Your task to perform on an android device: turn off location Image 0: 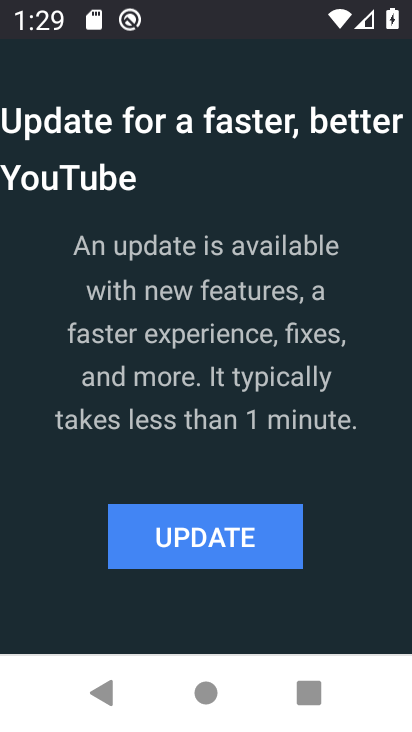
Step 0: press home button
Your task to perform on an android device: turn off location Image 1: 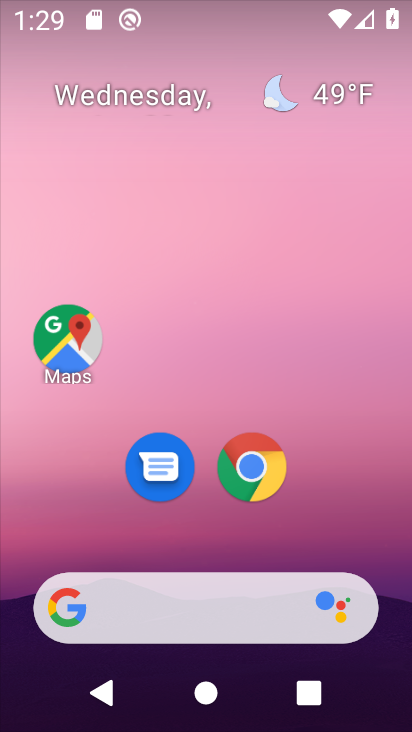
Step 1: drag from (391, 612) to (331, 120)
Your task to perform on an android device: turn off location Image 2: 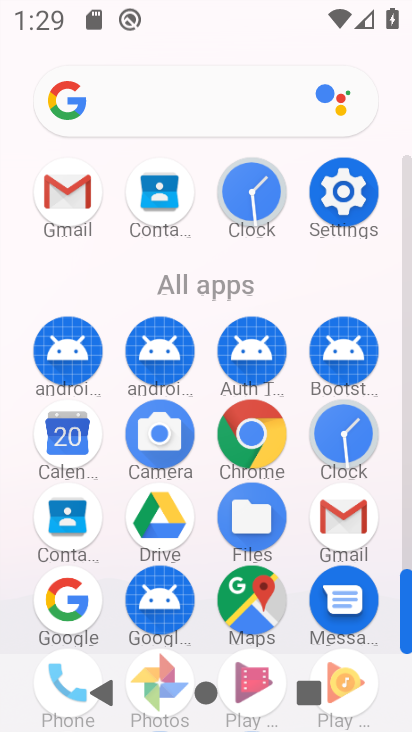
Step 2: drag from (406, 553) to (408, 463)
Your task to perform on an android device: turn off location Image 3: 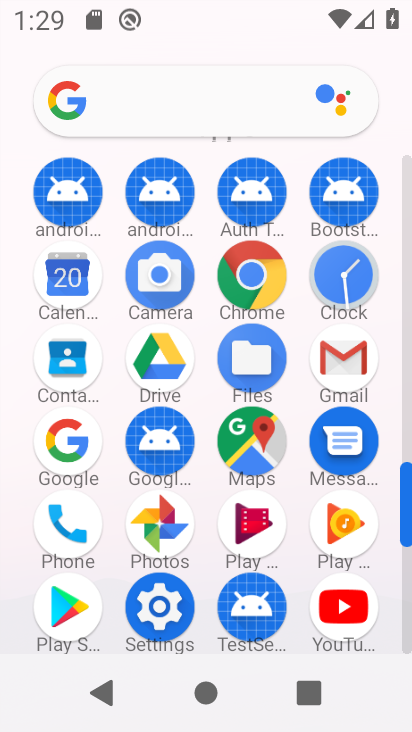
Step 3: click (159, 608)
Your task to perform on an android device: turn off location Image 4: 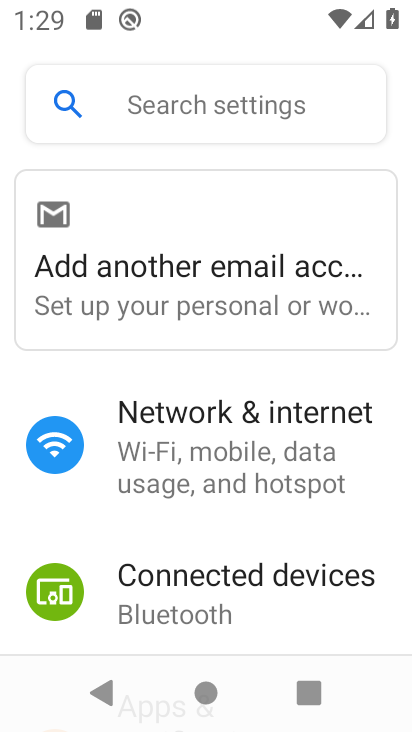
Step 4: drag from (373, 585) to (364, 205)
Your task to perform on an android device: turn off location Image 5: 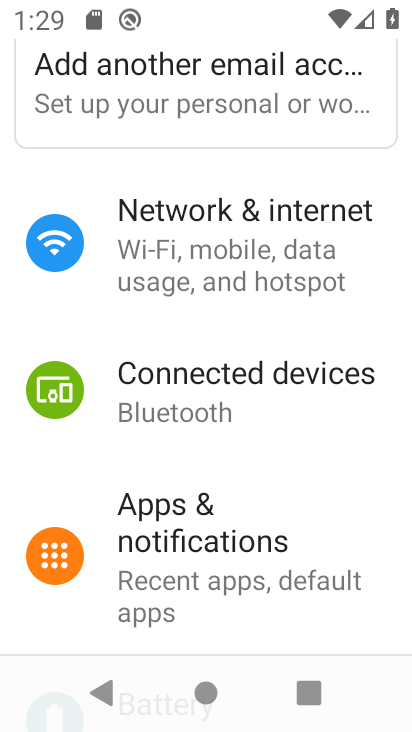
Step 5: drag from (353, 544) to (354, 180)
Your task to perform on an android device: turn off location Image 6: 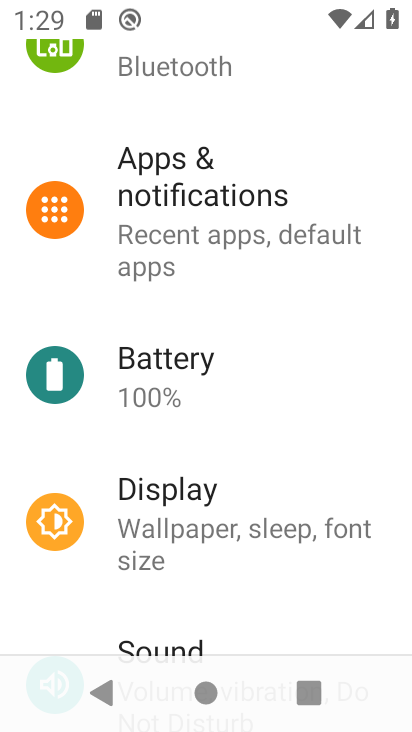
Step 6: drag from (330, 470) to (327, 184)
Your task to perform on an android device: turn off location Image 7: 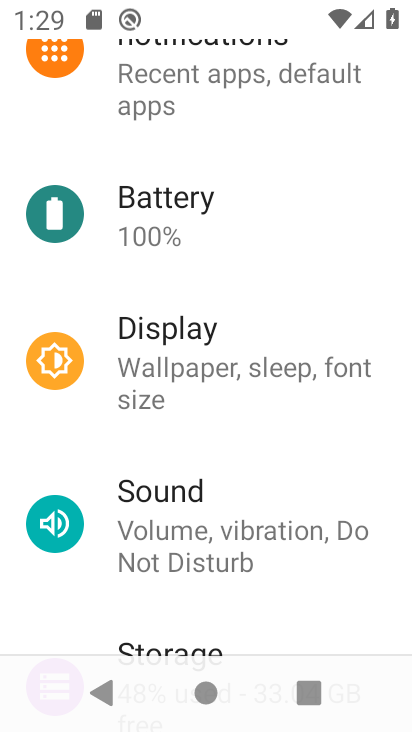
Step 7: drag from (293, 412) to (287, 125)
Your task to perform on an android device: turn off location Image 8: 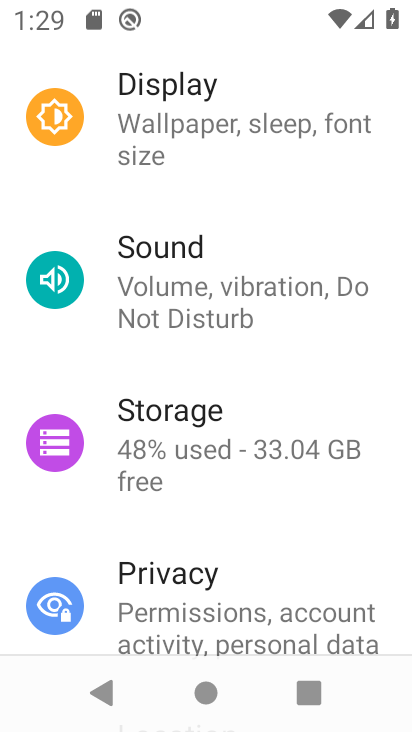
Step 8: drag from (263, 560) to (277, 286)
Your task to perform on an android device: turn off location Image 9: 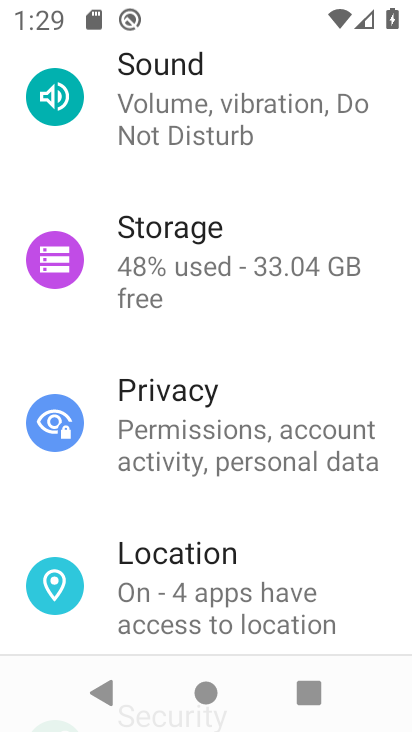
Step 9: click (182, 597)
Your task to perform on an android device: turn off location Image 10: 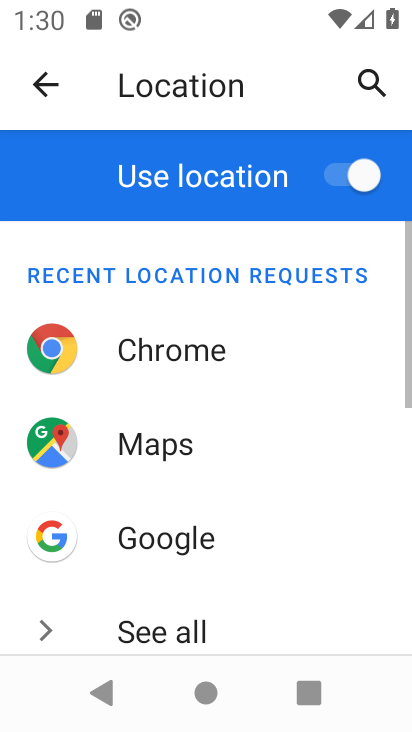
Step 10: drag from (241, 614) to (269, 324)
Your task to perform on an android device: turn off location Image 11: 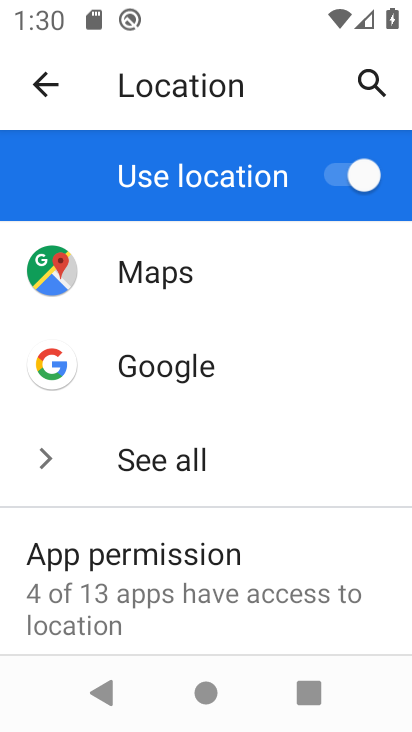
Step 11: click (333, 173)
Your task to perform on an android device: turn off location Image 12: 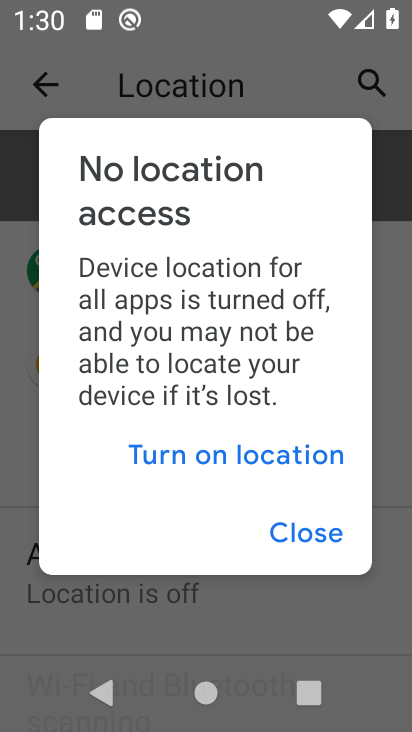
Step 12: click (295, 528)
Your task to perform on an android device: turn off location Image 13: 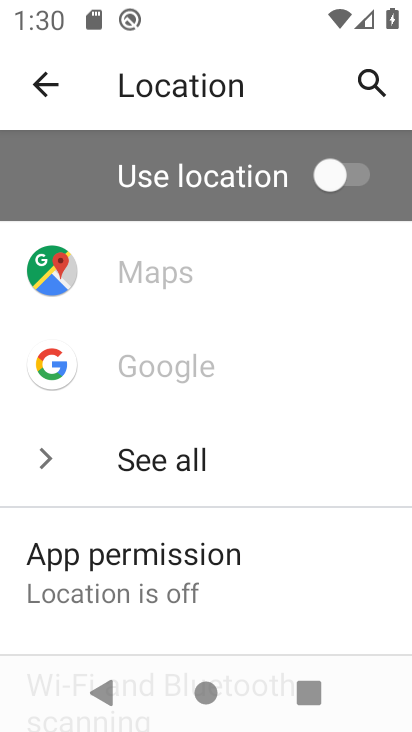
Step 13: task complete